Your task to perform on an android device: Open Google Chrome and click the shortcut for Amazon.com Image 0: 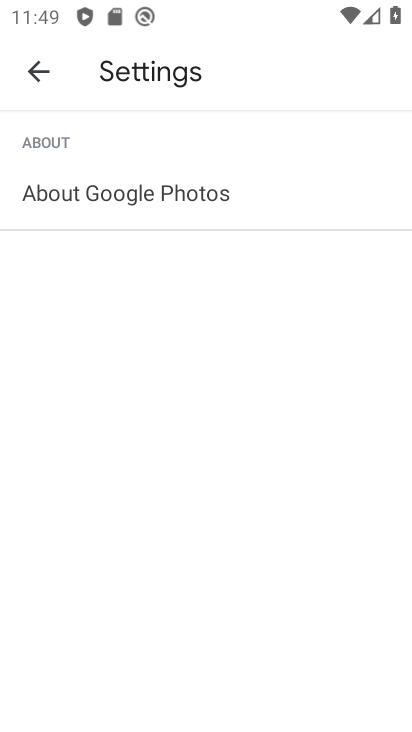
Step 0: press home button
Your task to perform on an android device: Open Google Chrome and click the shortcut for Amazon.com Image 1: 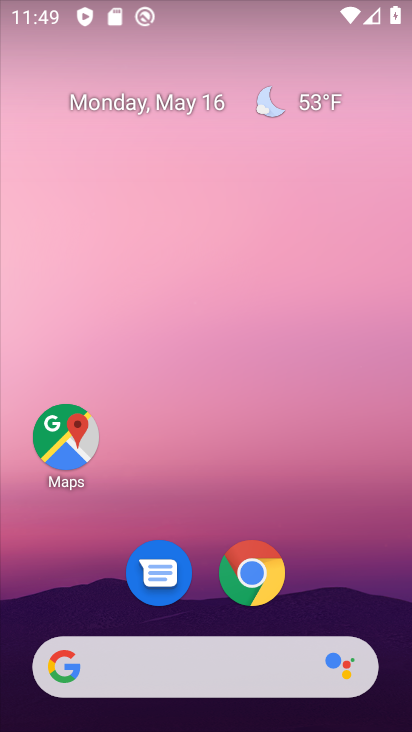
Step 1: click (245, 586)
Your task to perform on an android device: Open Google Chrome and click the shortcut for Amazon.com Image 2: 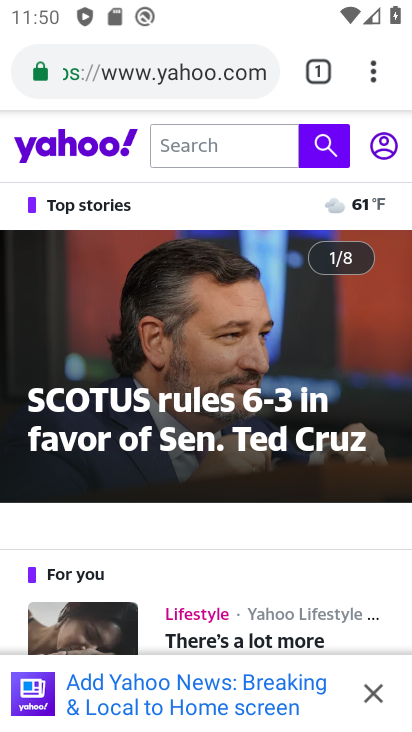
Step 2: click (234, 69)
Your task to perform on an android device: Open Google Chrome and click the shortcut for Amazon.com Image 3: 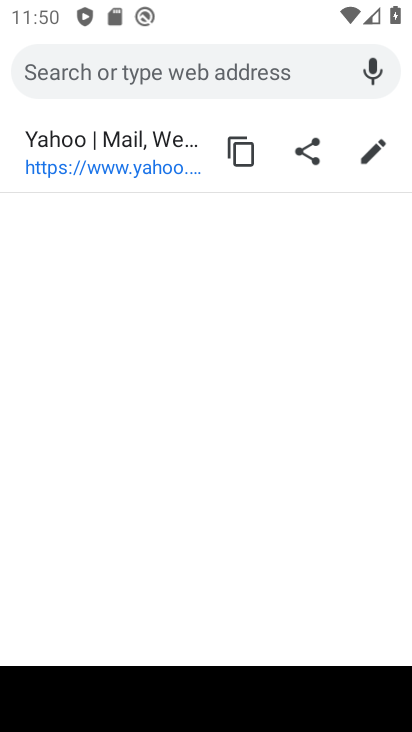
Step 3: type "amazon.com"
Your task to perform on an android device: Open Google Chrome and click the shortcut for Amazon.com Image 4: 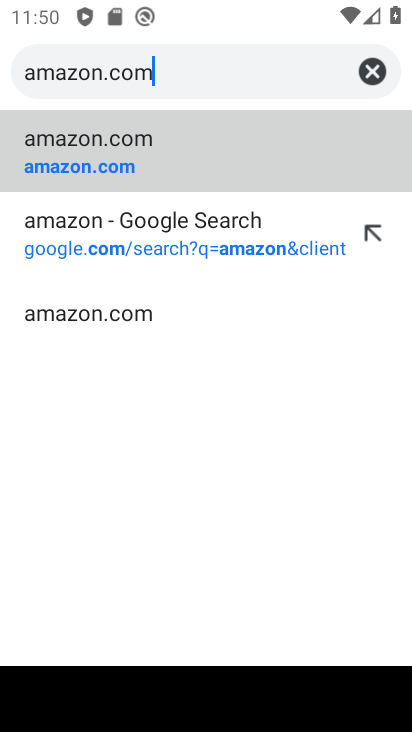
Step 4: click (287, 182)
Your task to perform on an android device: Open Google Chrome and click the shortcut for Amazon.com Image 5: 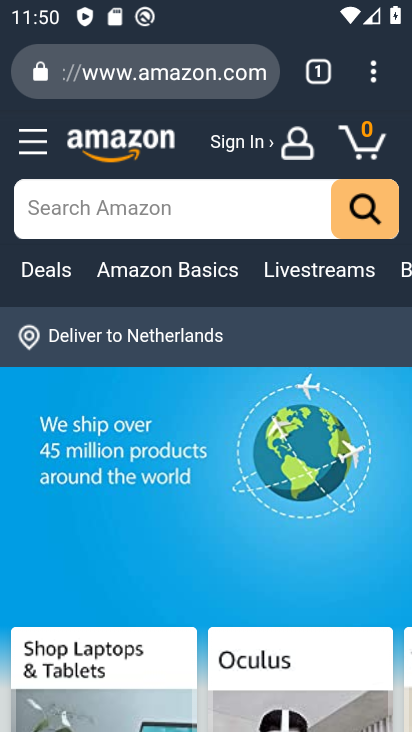
Step 5: task complete